Your task to perform on an android device: Open privacy settings Image 0: 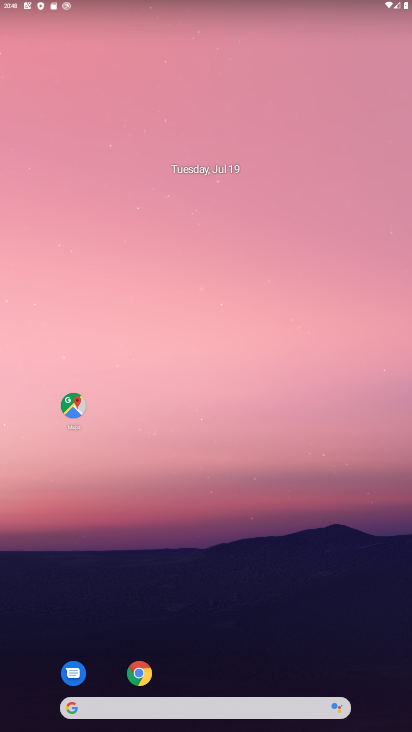
Step 0: drag from (206, 687) to (267, 39)
Your task to perform on an android device: Open privacy settings Image 1: 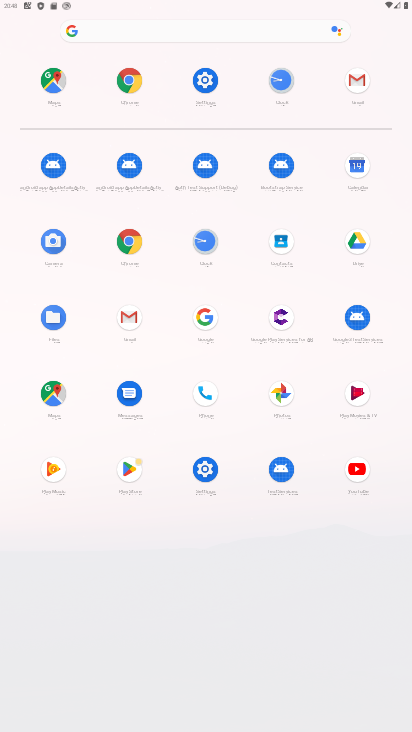
Step 1: click (210, 479)
Your task to perform on an android device: Open privacy settings Image 2: 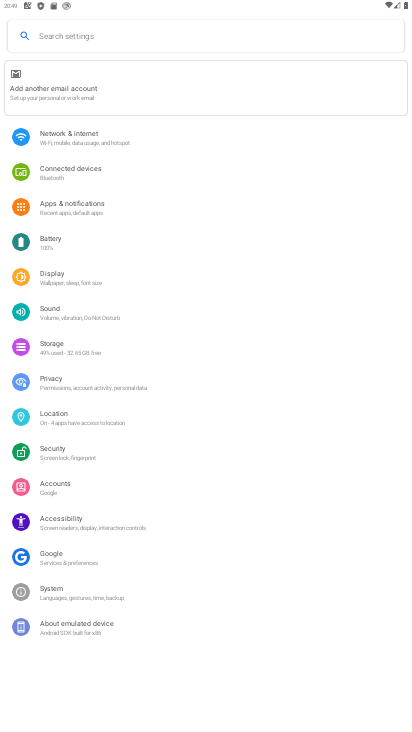
Step 2: click (61, 379)
Your task to perform on an android device: Open privacy settings Image 3: 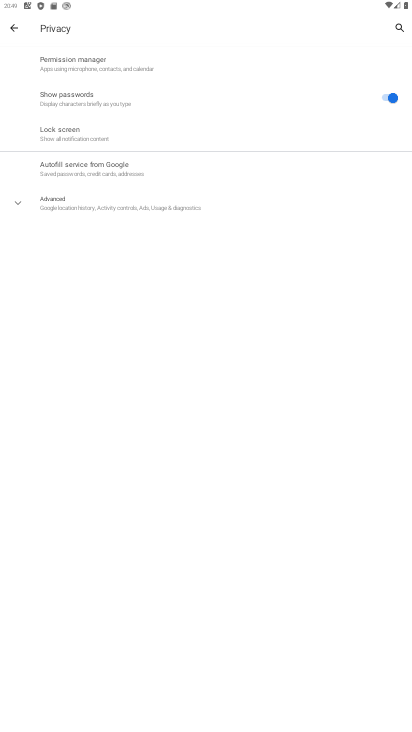
Step 3: task complete